Your task to perform on an android device: Open eBay Image 0: 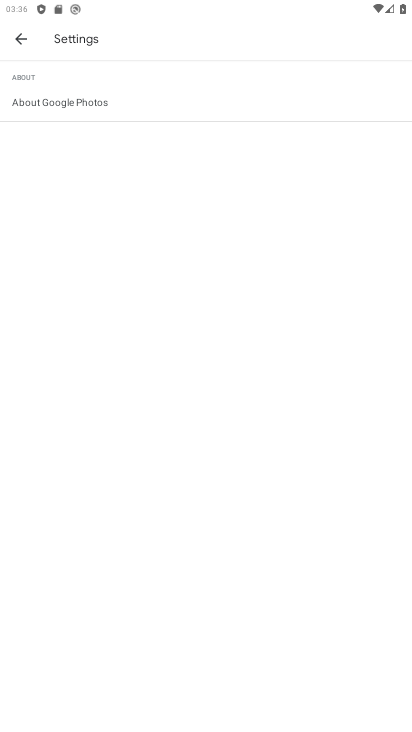
Step 0: press home button
Your task to perform on an android device: Open eBay Image 1: 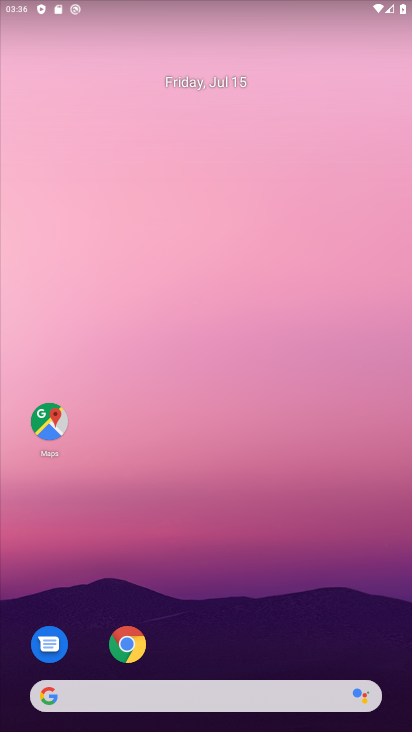
Step 1: click (134, 638)
Your task to perform on an android device: Open eBay Image 2: 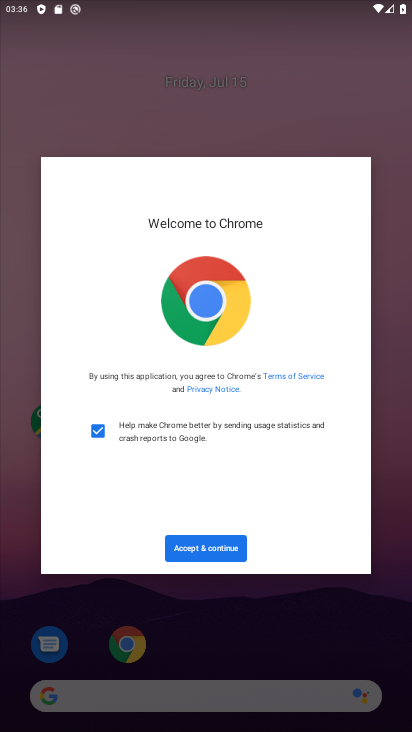
Step 2: click (210, 545)
Your task to perform on an android device: Open eBay Image 3: 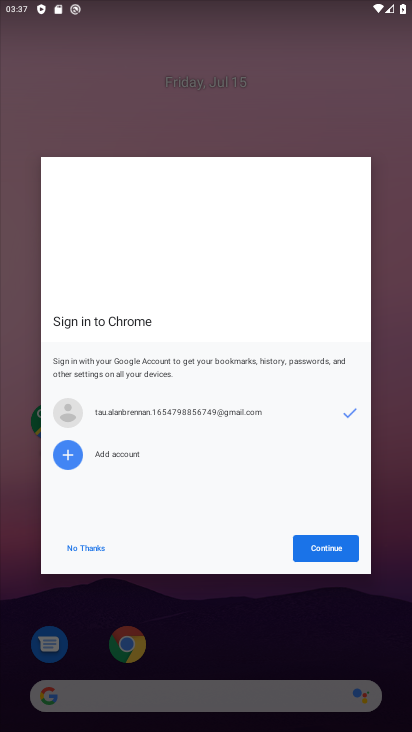
Step 3: click (309, 548)
Your task to perform on an android device: Open eBay Image 4: 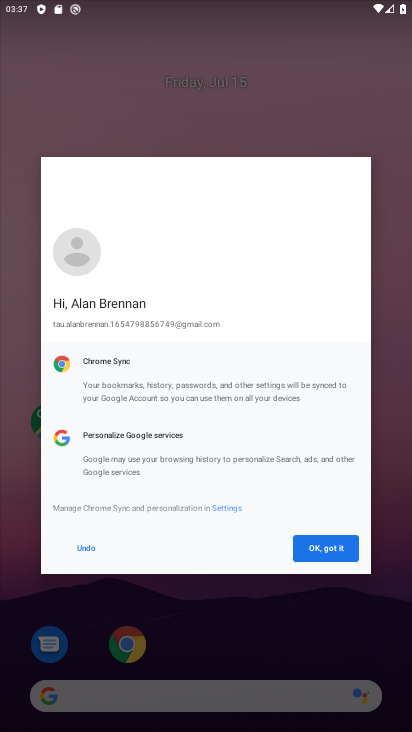
Step 4: click (309, 548)
Your task to perform on an android device: Open eBay Image 5: 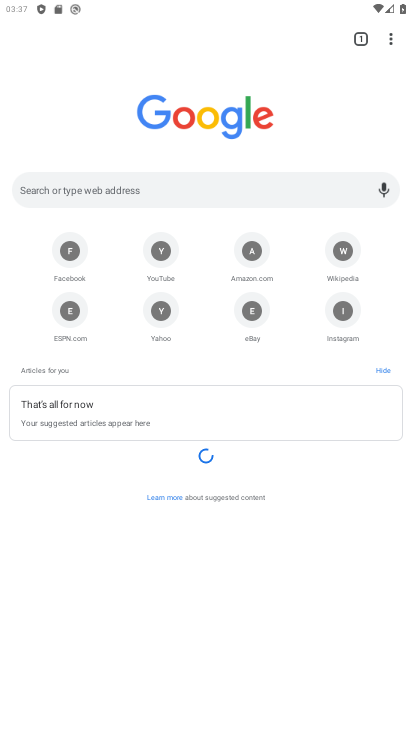
Step 5: click (252, 309)
Your task to perform on an android device: Open eBay Image 6: 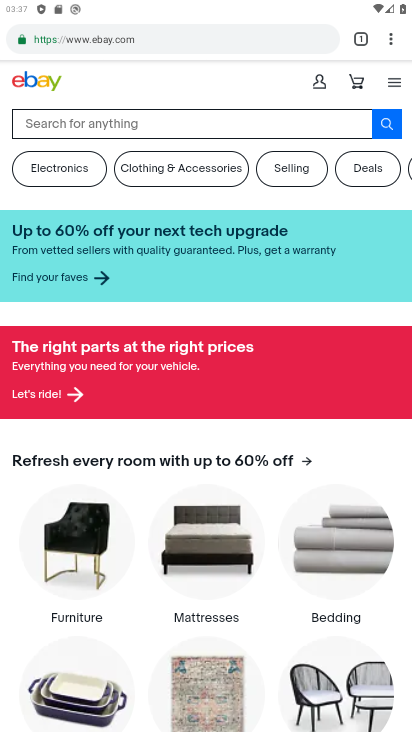
Step 6: task complete